Your task to perform on an android device: turn notification dots on Image 0: 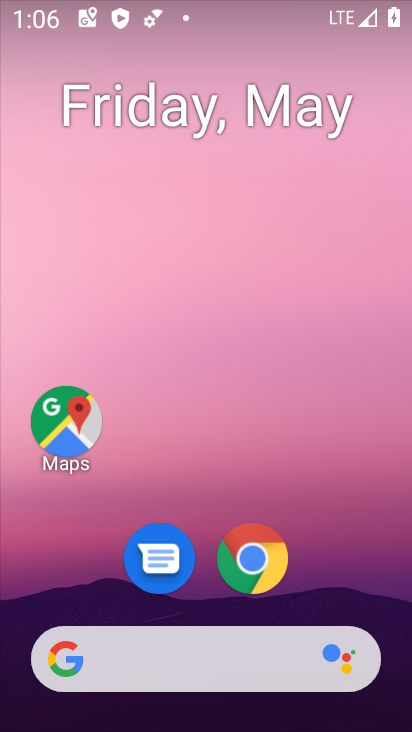
Step 0: drag from (352, 587) to (259, 108)
Your task to perform on an android device: turn notification dots on Image 1: 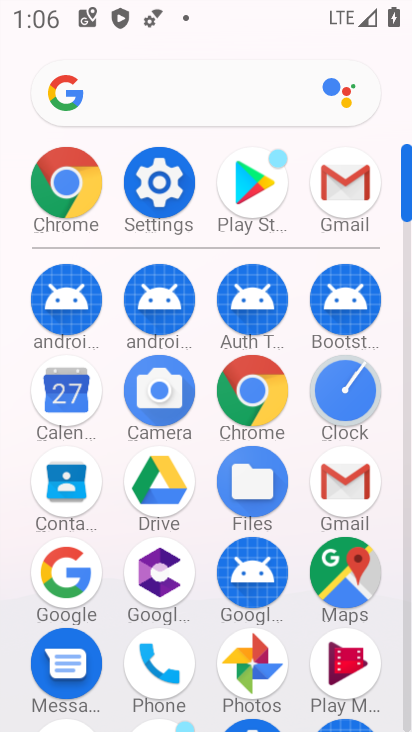
Step 1: click (174, 186)
Your task to perform on an android device: turn notification dots on Image 2: 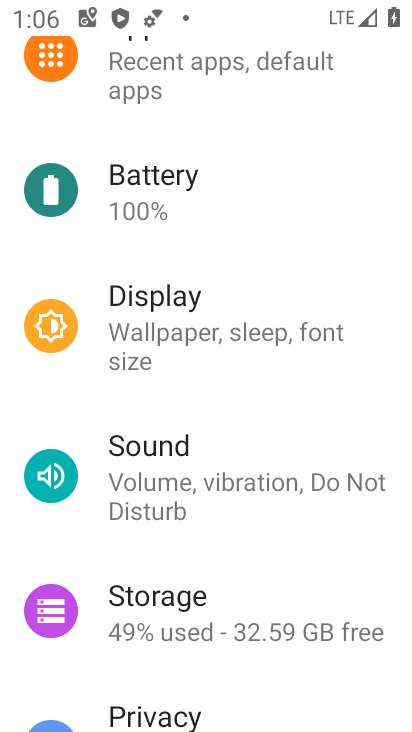
Step 2: drag from (214, 109) to (202, 457)
Your task to perform on an android device: turn notification dots on Image 3: 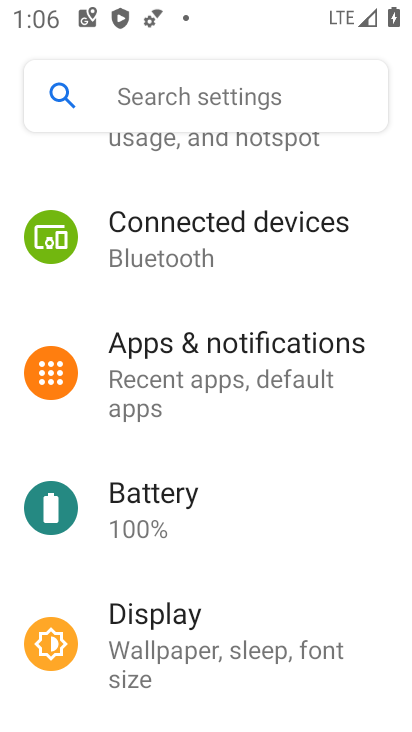
Step 3: click (211, 389)
Your task to perform on an android device: turn notification dots on Image 4: 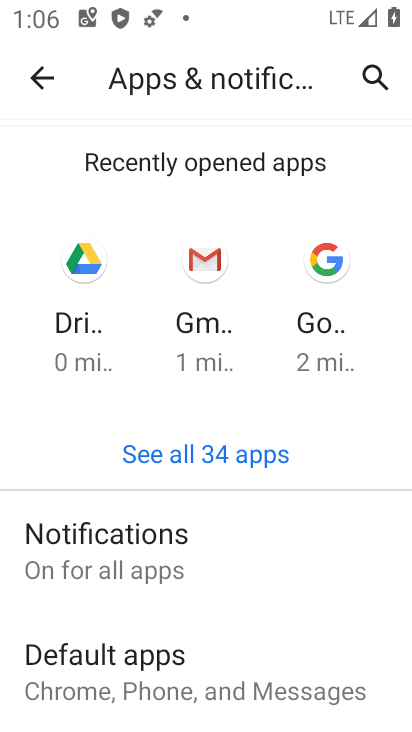
Step 4: click (238, 561)
Your task to perform on an android device: turn notification dots on Image 5: 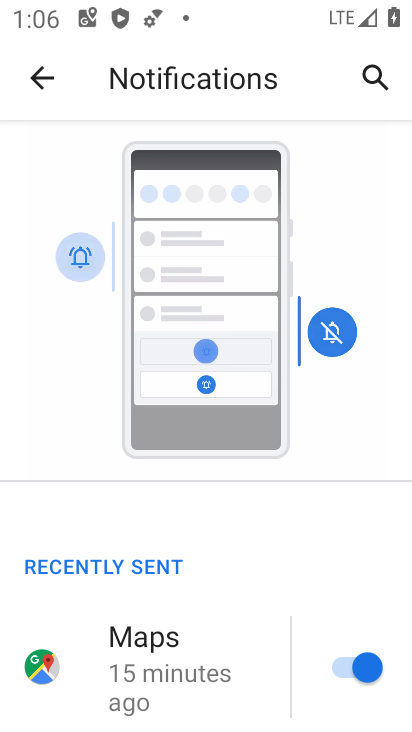
Step 5: drag from (261, 718) to (275, 42)
Your task to perform on an android device: turn notification dots on Image 6: 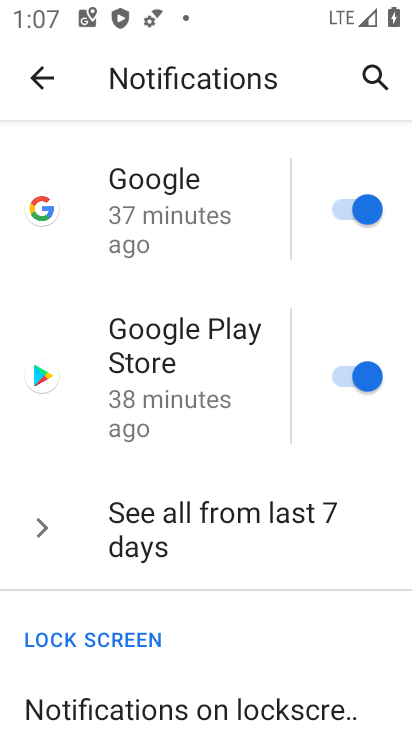
Step 6: drag from (257, 622) to (246, 83)
Your task to perform on an android device: turn notification dots on Image 7: 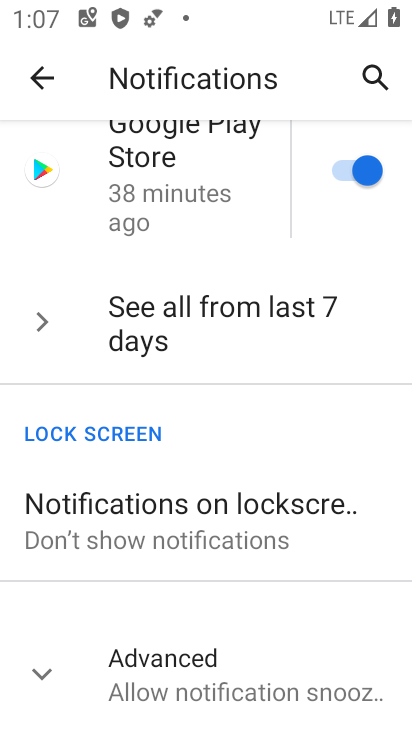
Step 7: click (261, 675)
Your task to perform on an android device: turn notification dots on Image 8: 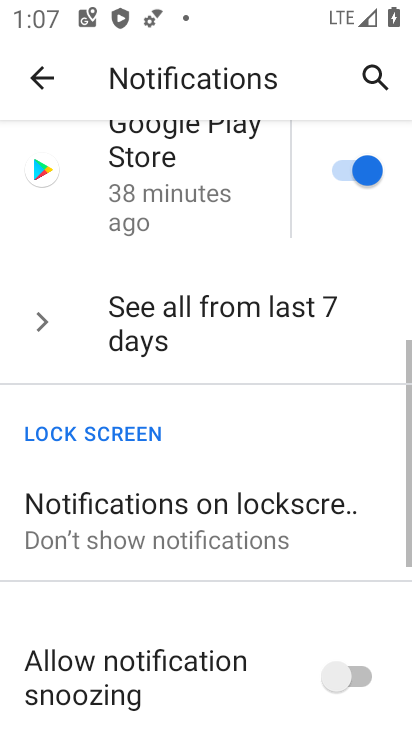
Step 8: task complete